Your task to perform on an android device: open device folders in google photos Image 0: 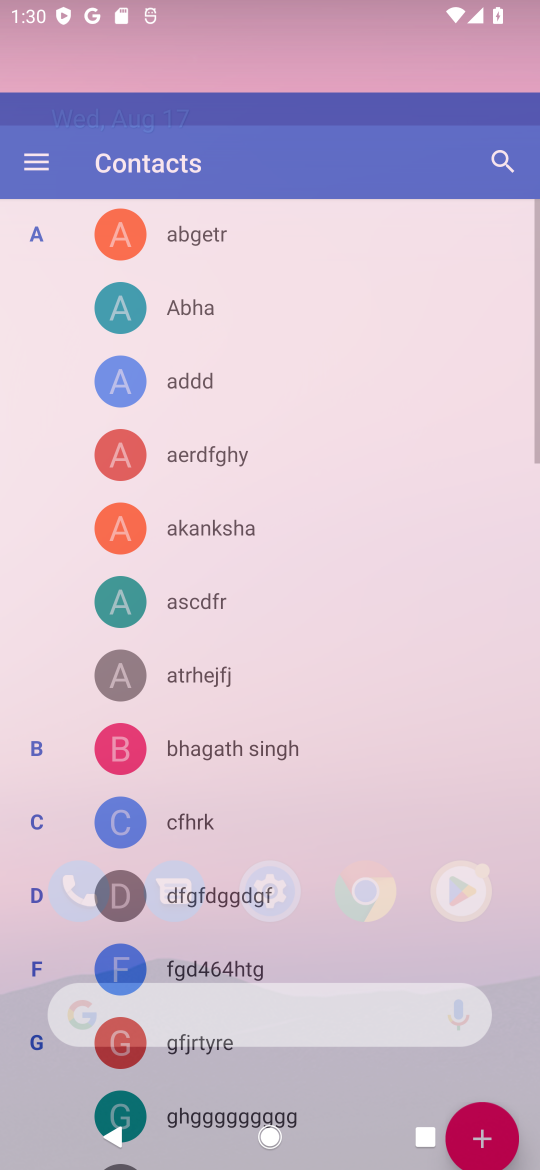
Step 0: press home button
Your task to perform on an android device: open device folders in google photos Image 1: 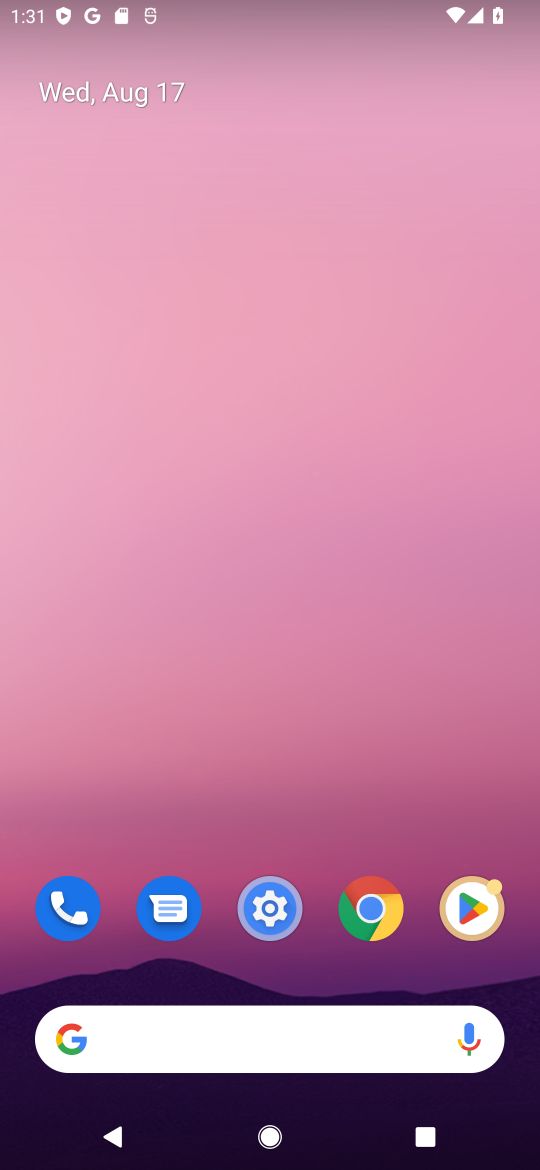
Step 1: drag from (318, 987) to (333, 25)
Your task to perform on an android device: open device folders in google photos Image 2: 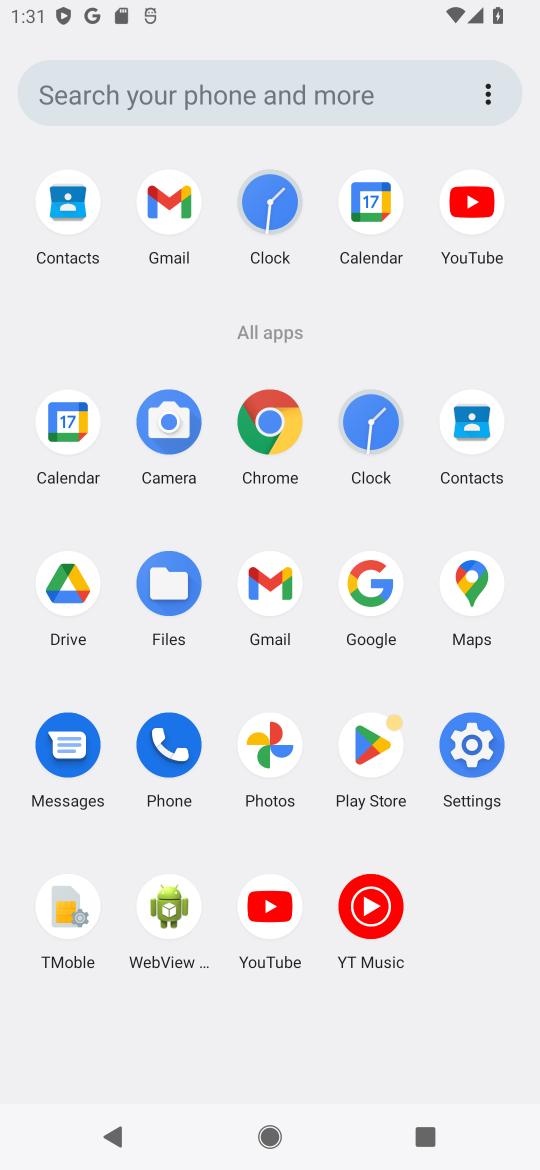
Step 2: click (259, 747)
Your task to perform on an android device: open device folders in google photos Image 3: 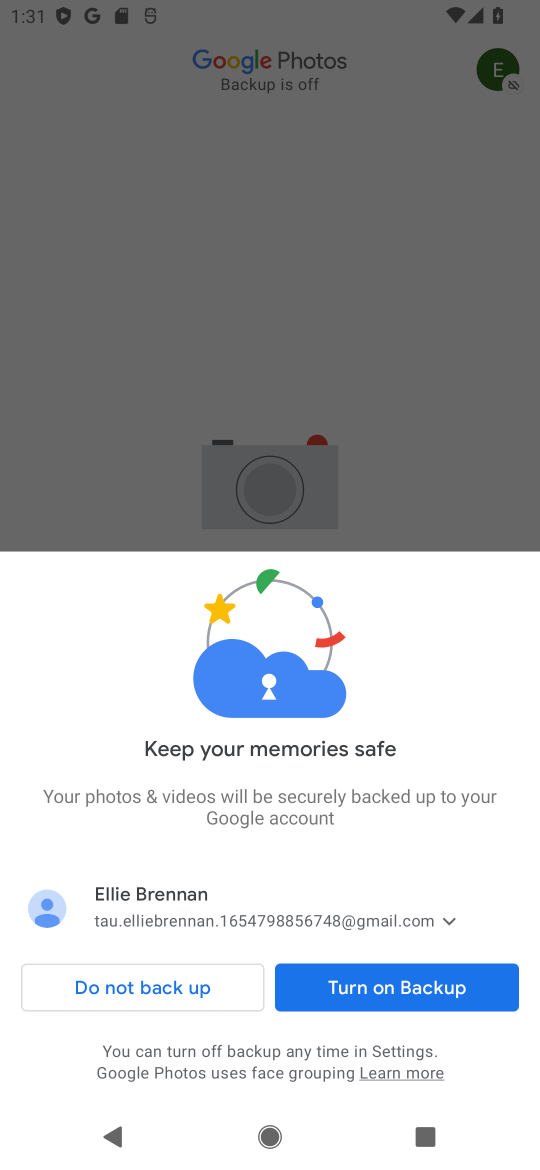
Step 3: click (148, 993)
Your task to perform on an android device: open device folders in google photos Image 4: 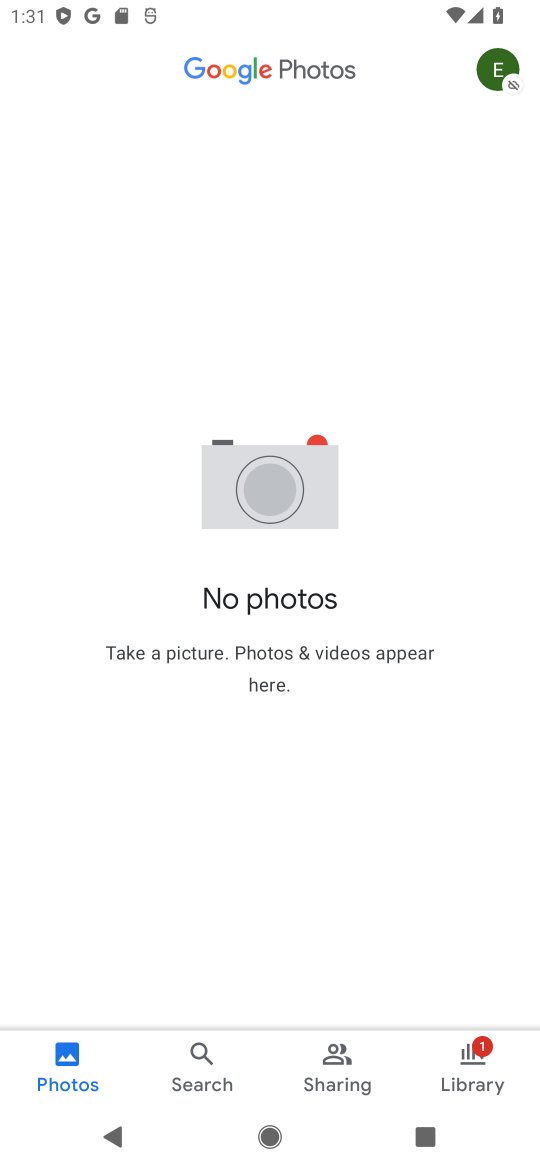
Step 4: click (505, 85)
Your task to perform on an android device: open device folders in google photos Image 5: 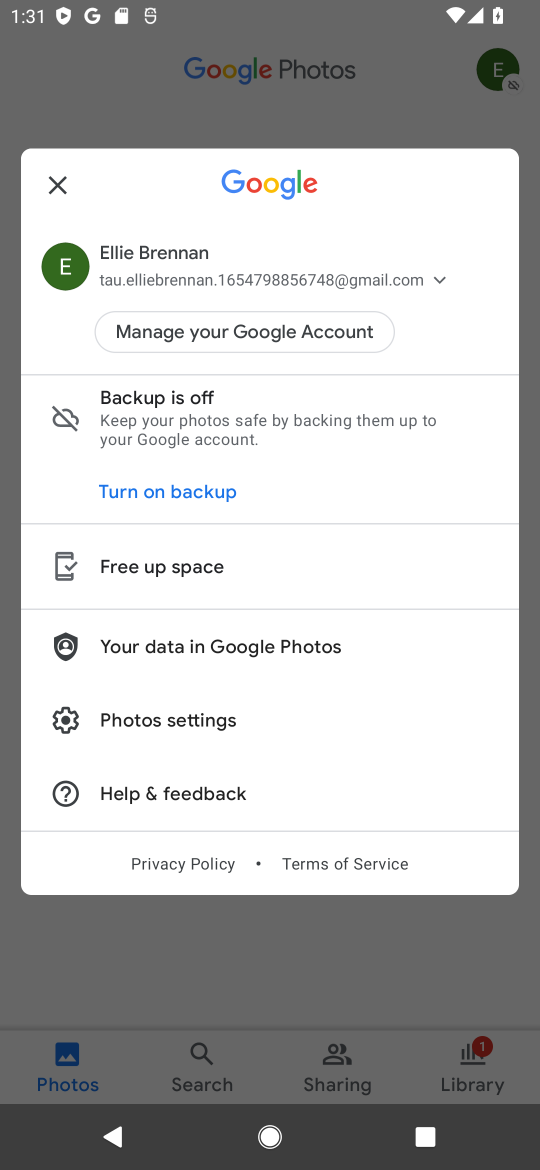
Step 5: task complete